Your task to perform on an android device: check battery use Image 0: 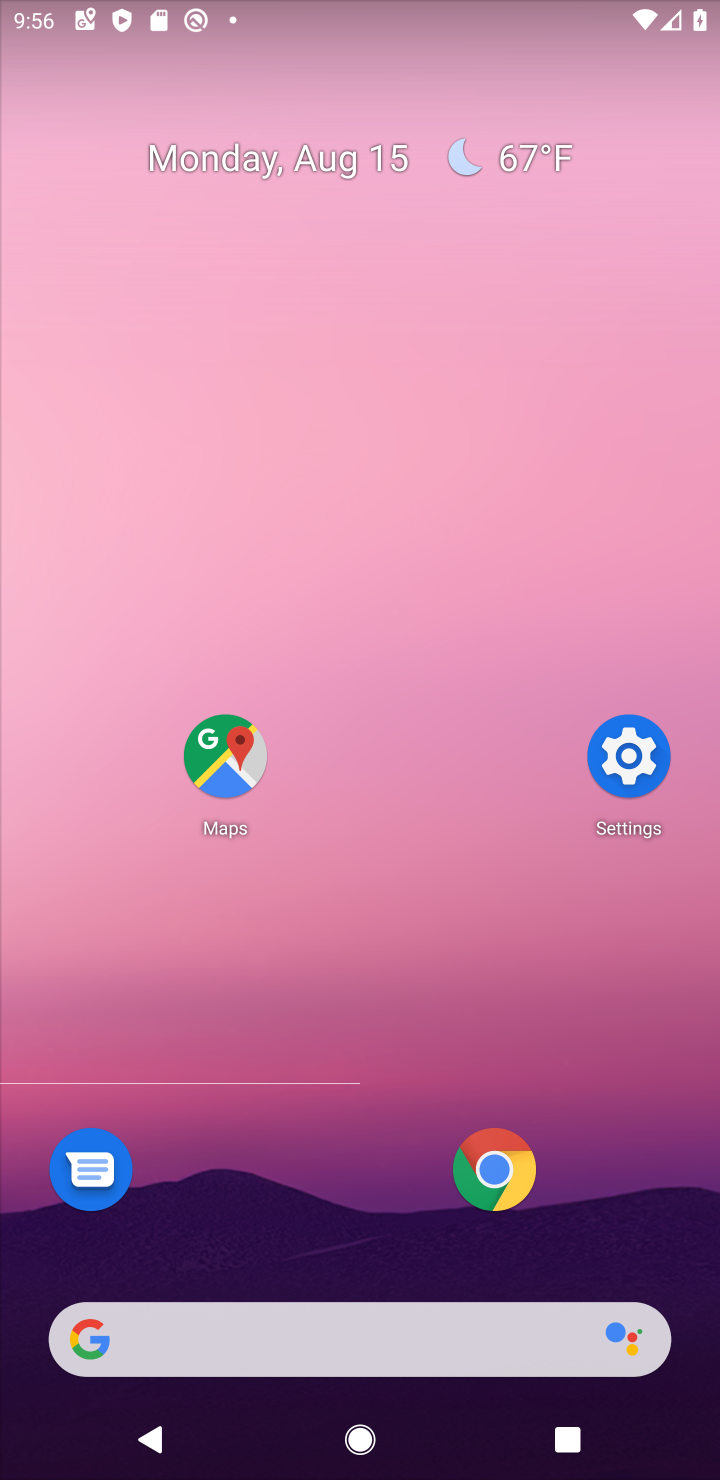
Step 0: click (221, 747)
Your task to perform on an android device: check battery use Image 1: 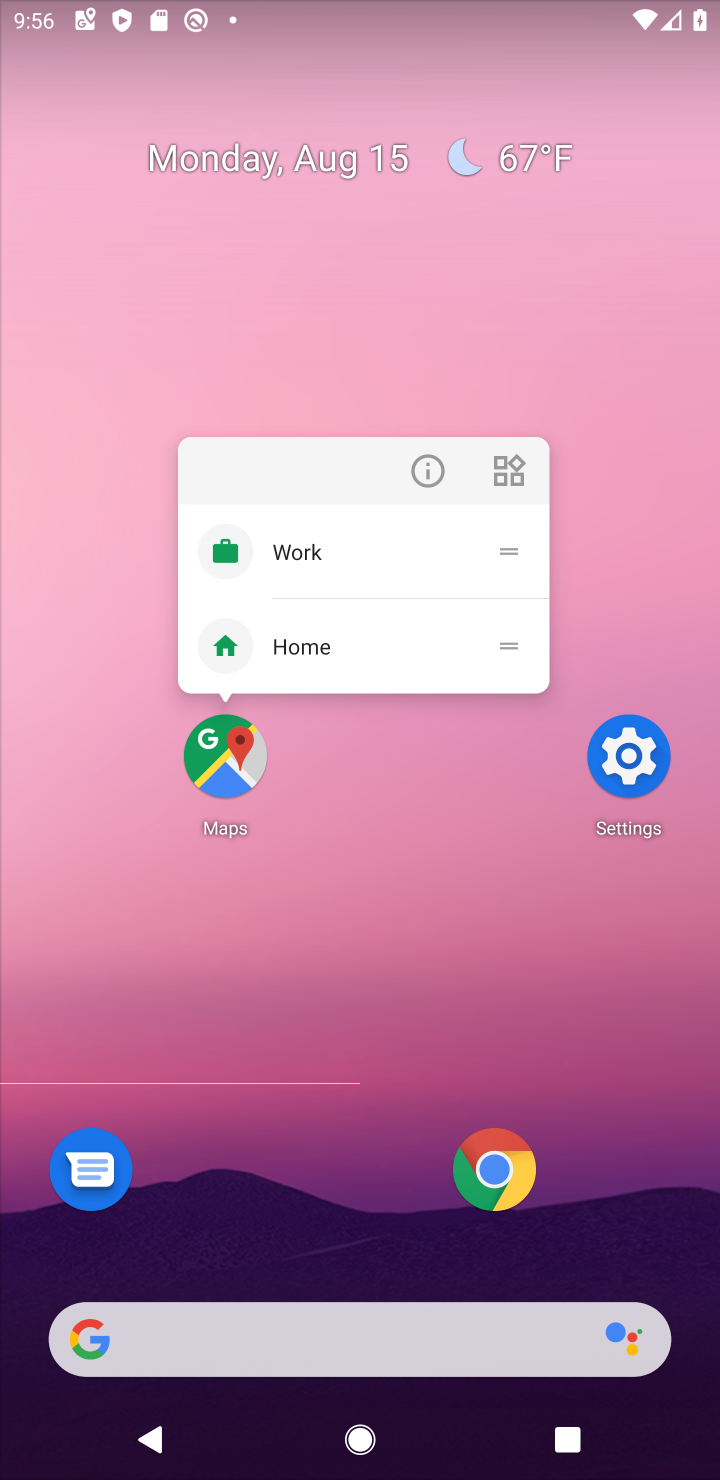
Step 1: click (226, 772)
Your task to perform on an android device: check battery use Image 2: 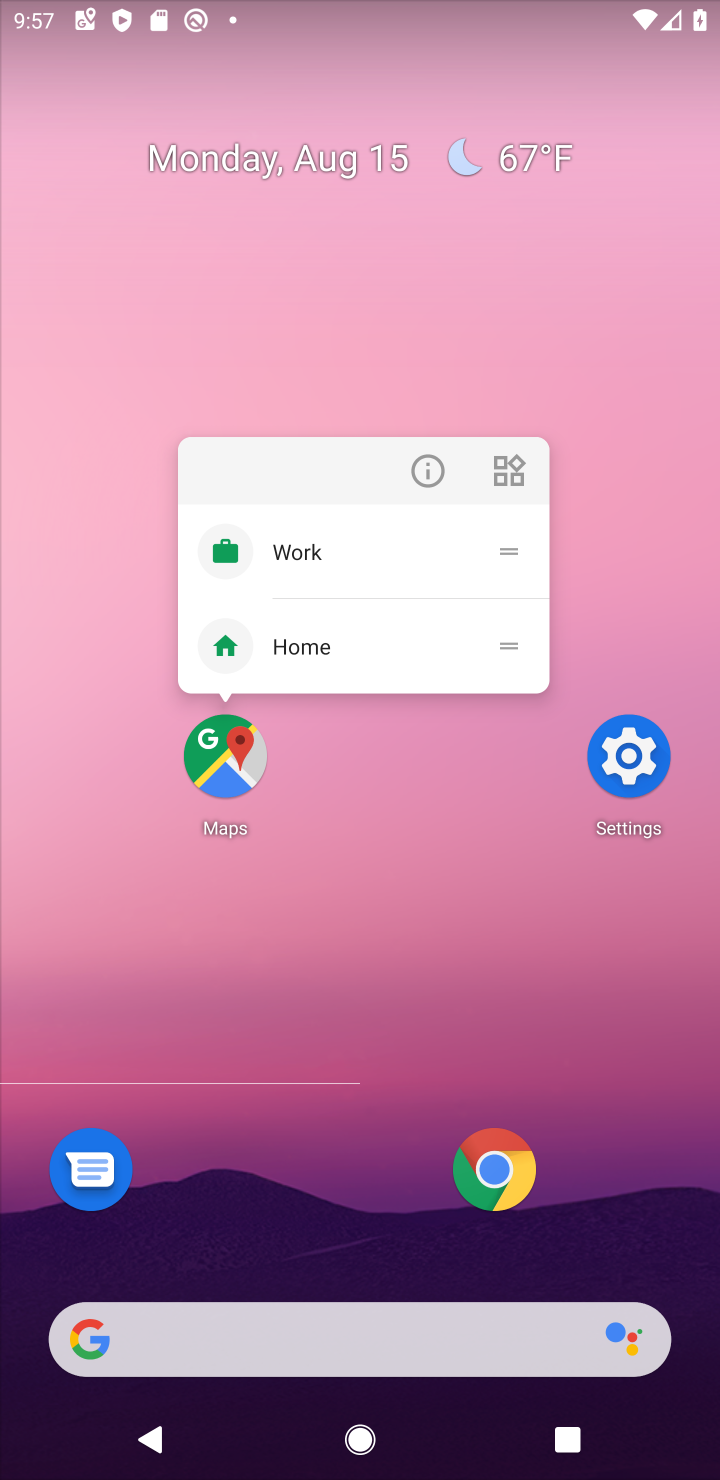
Step 2: click (226, 772)
Your task to perform on an android device: check battery use Image 3: 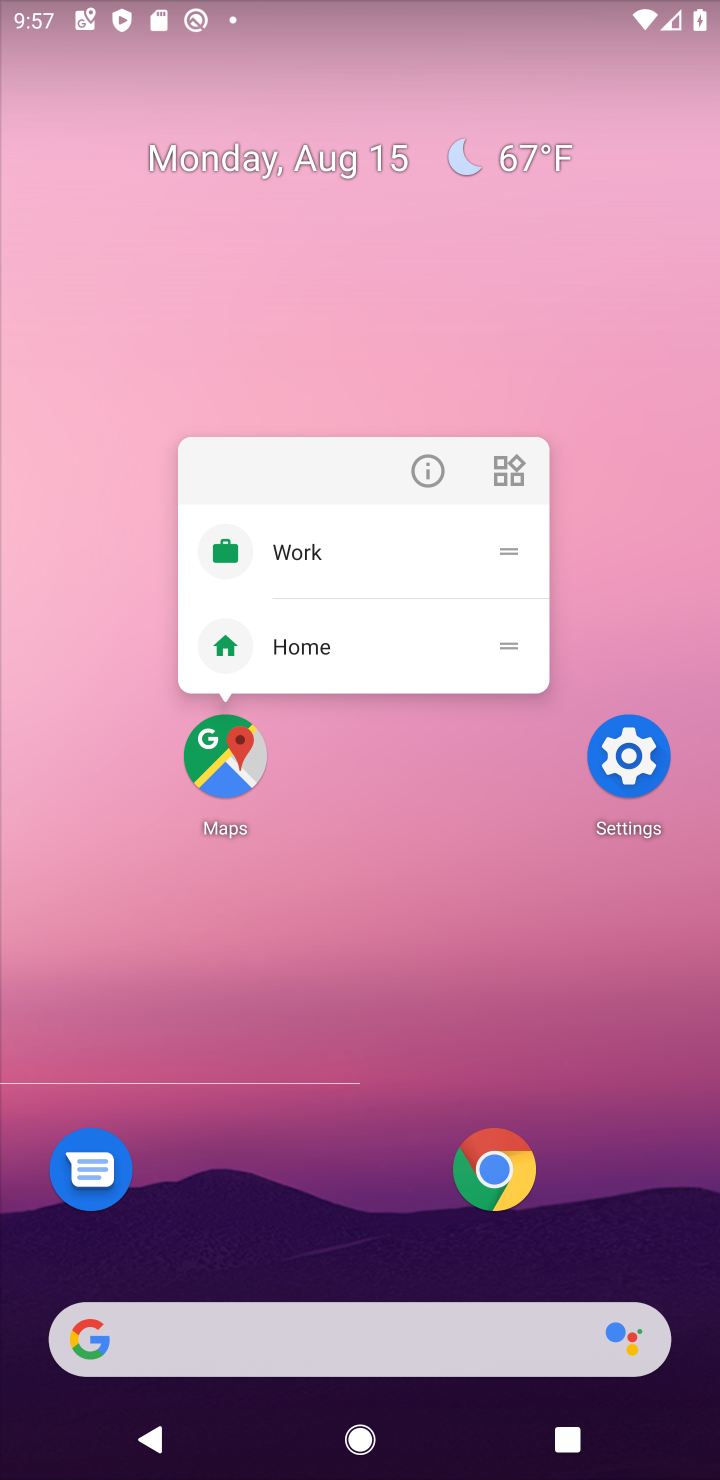
Step 3: click (228, 755)
Your task to perform on an android device: check battery use Image 4: 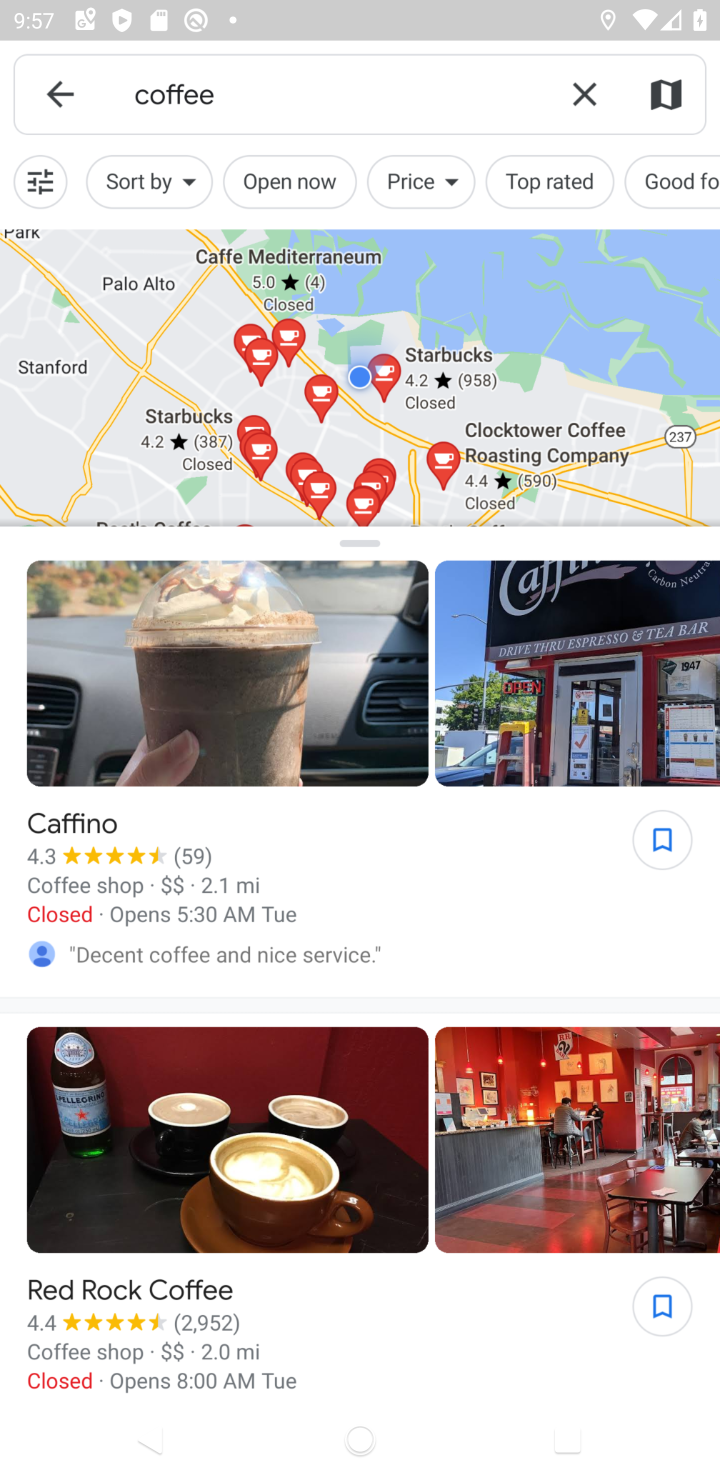
Step 4: click (575, 80)
Your task to perform on an android device: check battery use Image 5: 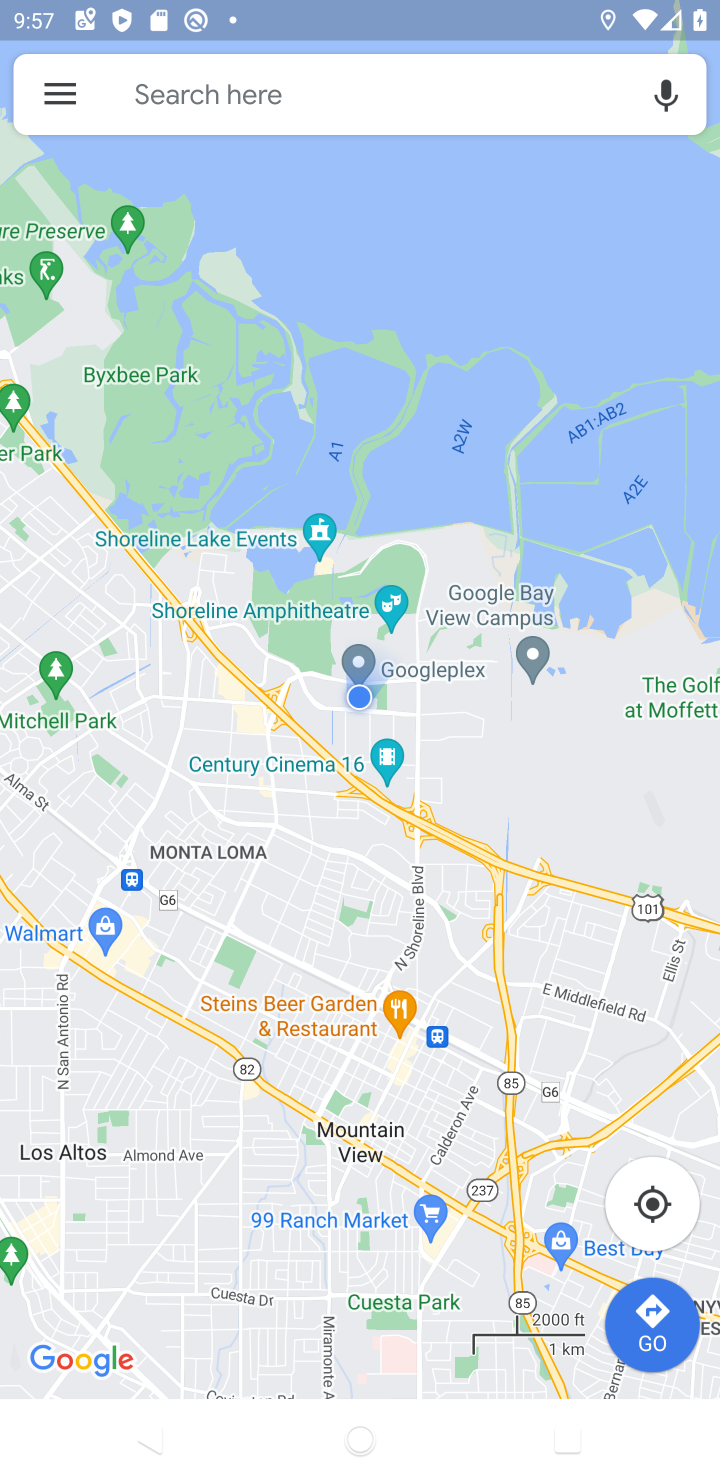
Step 5: click (295, 94)
Your task to perform on an android device: check battery use Image 6: 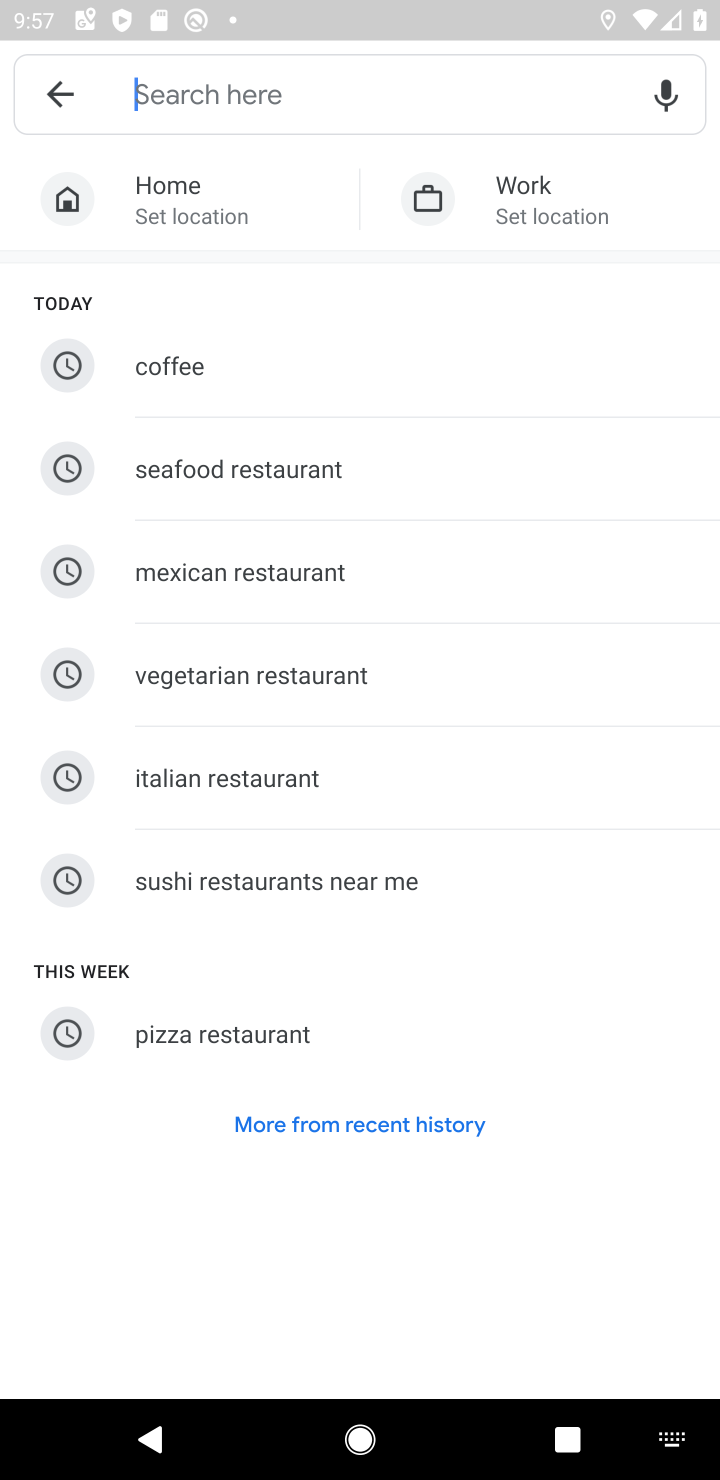
Step 6: press home button
Your task to perform on an android device: check battery use Image 7: 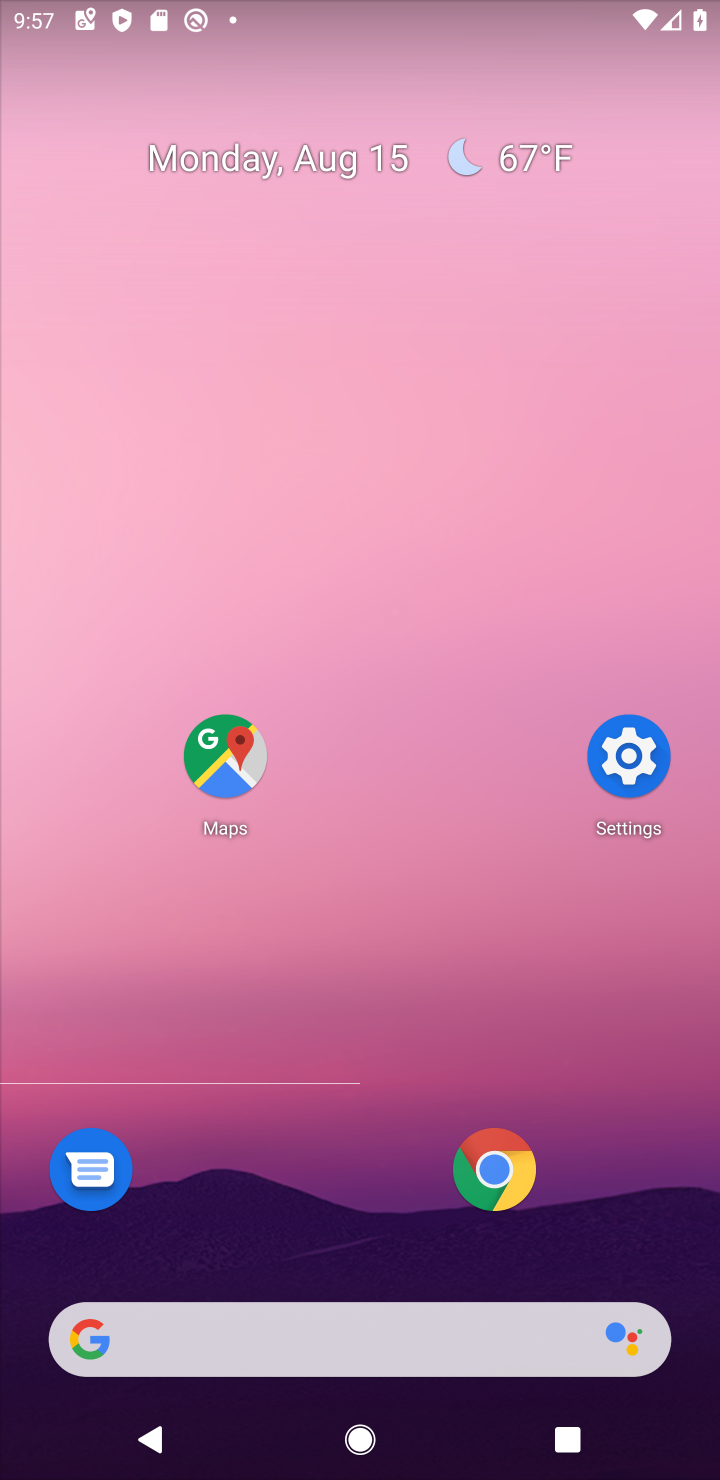
Step 7: click (632, 745)
Your task to perform on an android device: check battery use Image 8: 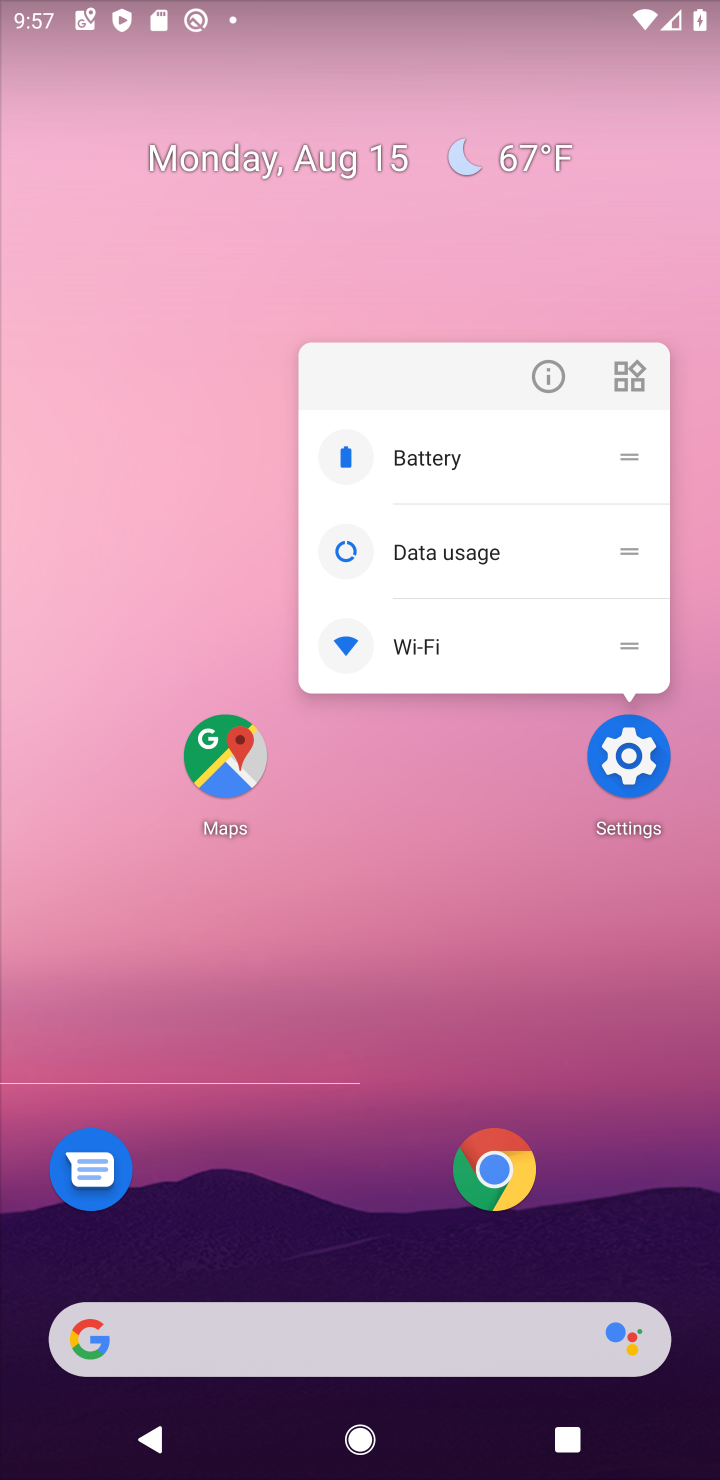
Step 8: click (636, 729)
Your task to perform on an android device: check battery use Image 9: 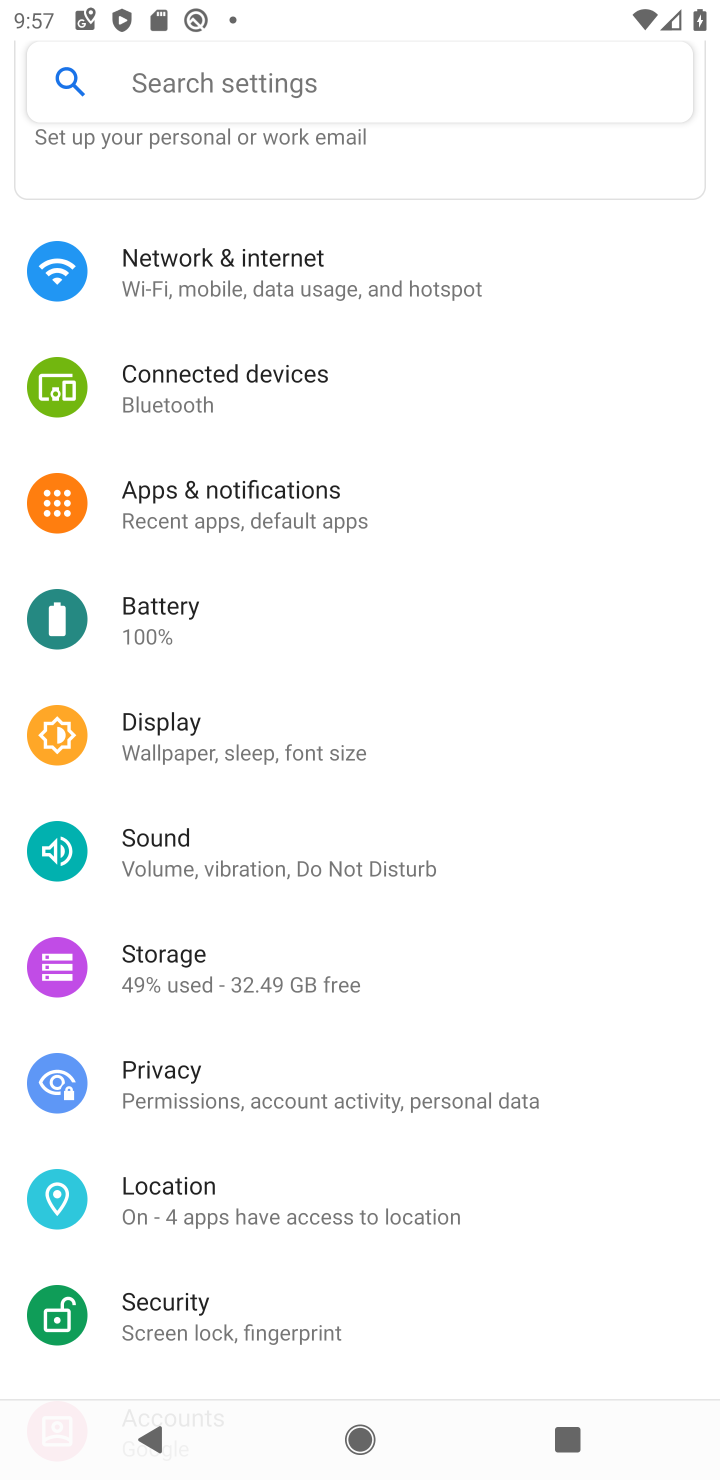
Step 9: click (213, 603)
Your task to perform on an android device: check battery use Image 10: 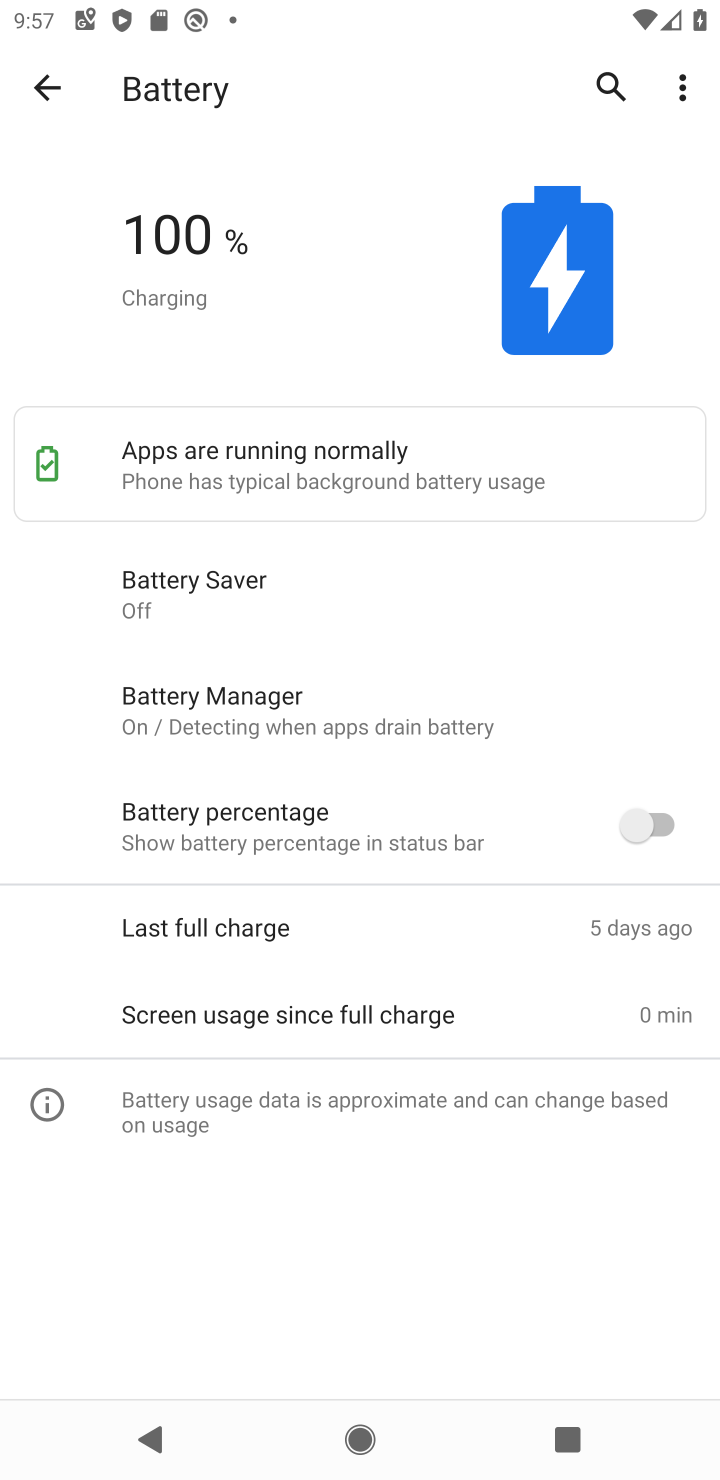
Step 10: click (663, 81)
Your task to perform on an android device: check battery use Image 11: 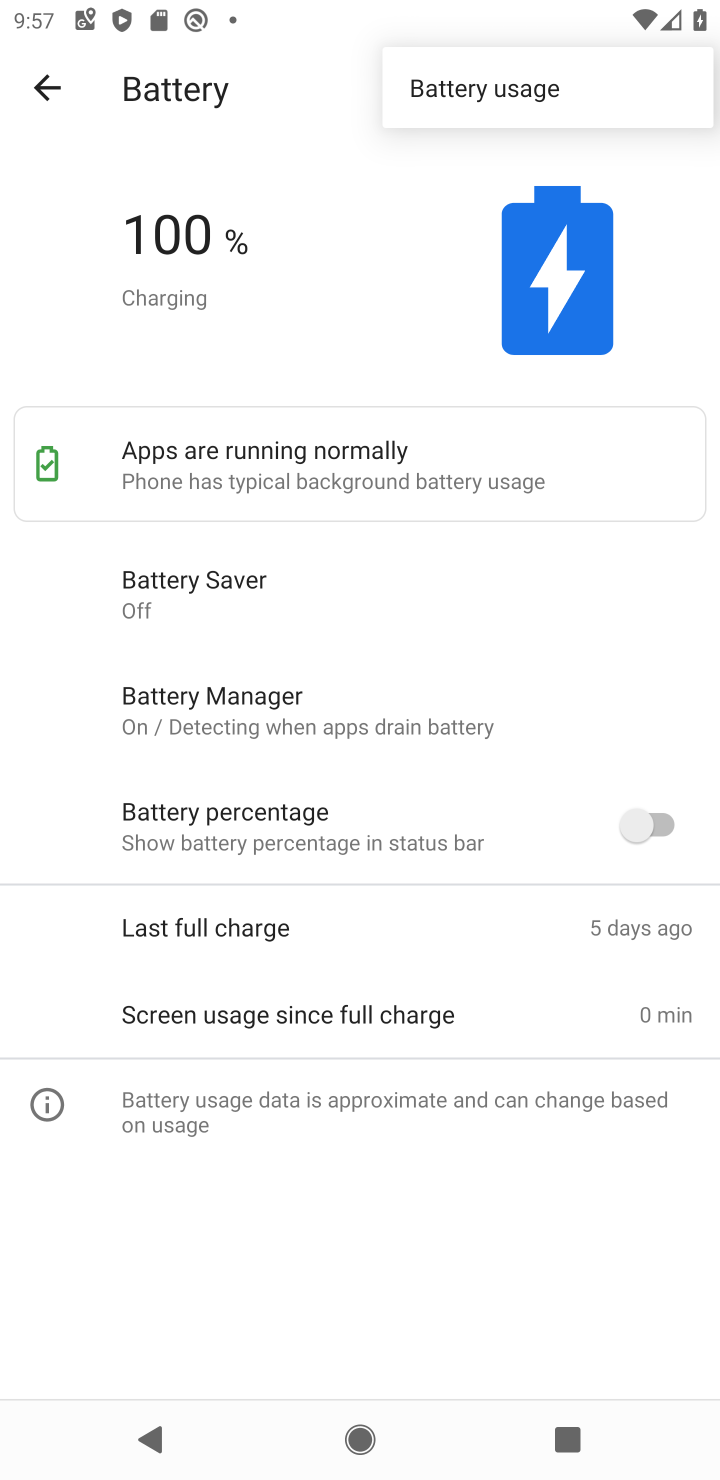
Step 11: click (487, 83)
Your task to perform on an android device: check battery use Image 12: 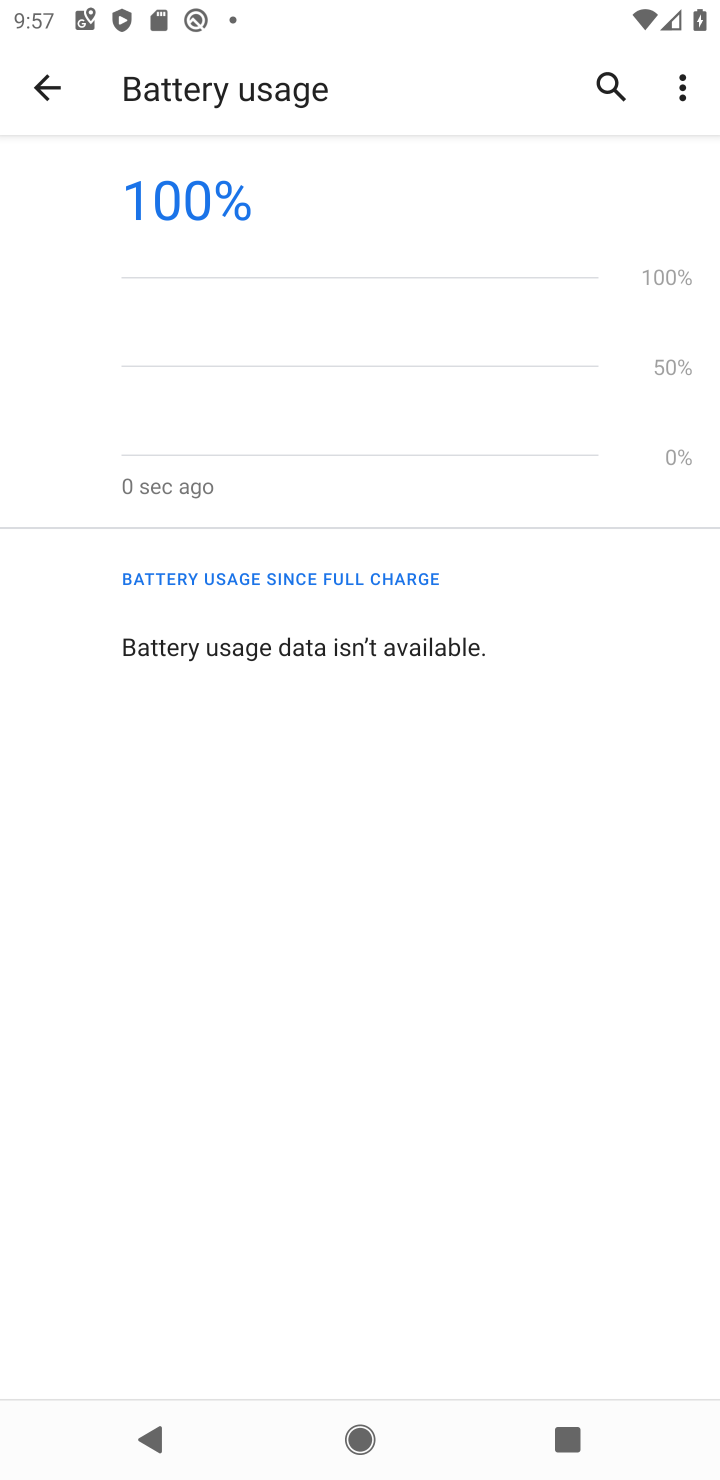
Step 12: task complete